Your task to perform on an android device: turn off wifi Image 0: 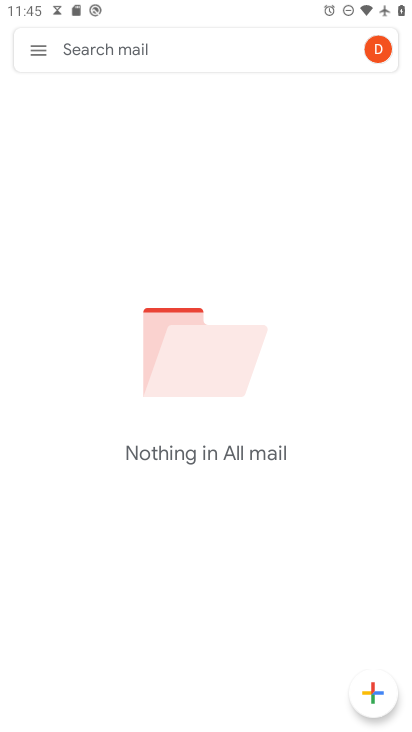
Step 0: press home button
Your task to perform on an android device: turn off wifi Image 1: 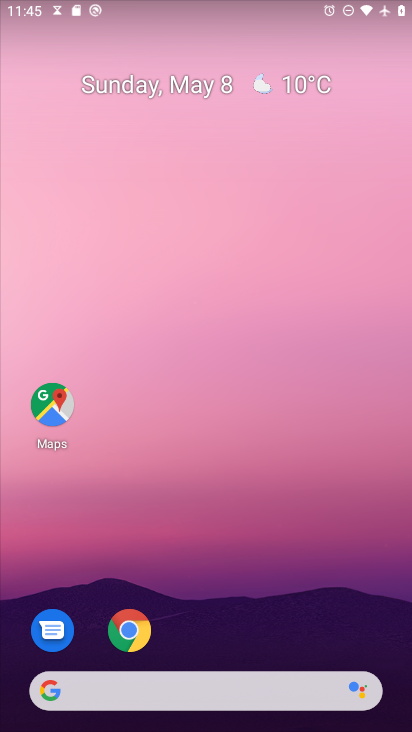
Step 1: drag from (192, 692) to (331, 181)
Your task to perform on an android device: turn off wifi Image 2: 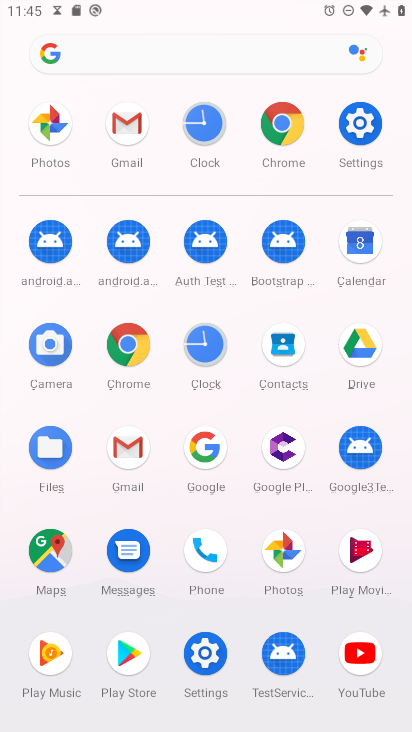
Step 2: click (361, 125)
Your task to perform on an android device: turn off wifi Image 3: 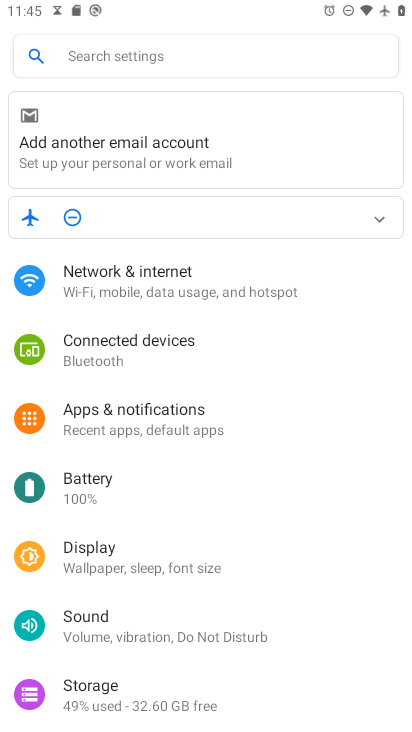
Step 3: click (148, 280)
Your task to perform on an android device: turn off wifi Image 4: 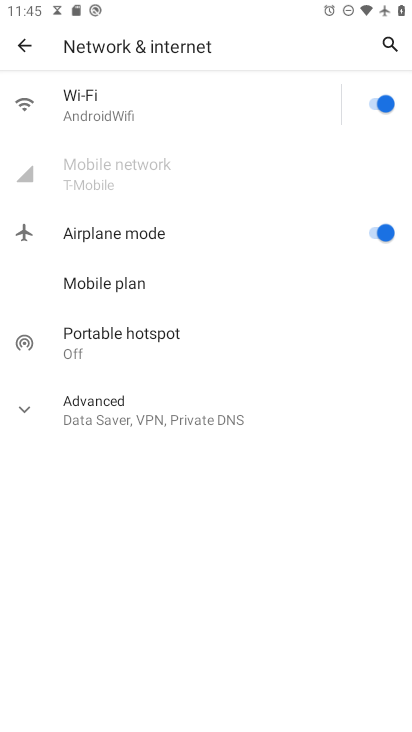
Step 4: click (378, 102)
Your task to perform on an android device: turn off wifi Image 5: 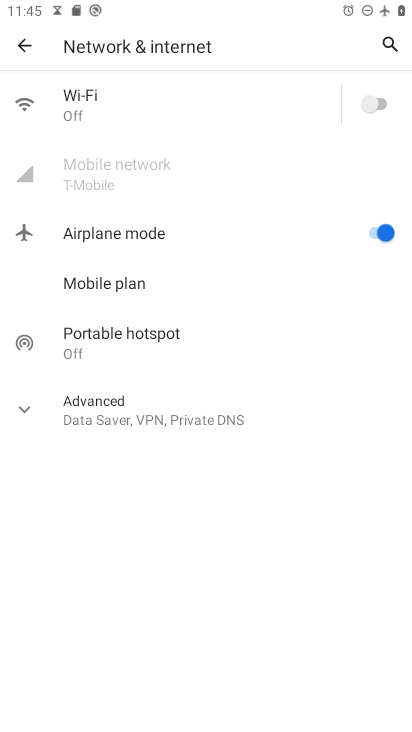
Step 5: task complete